Your task to perform on an android device: See recent photos Image 0: 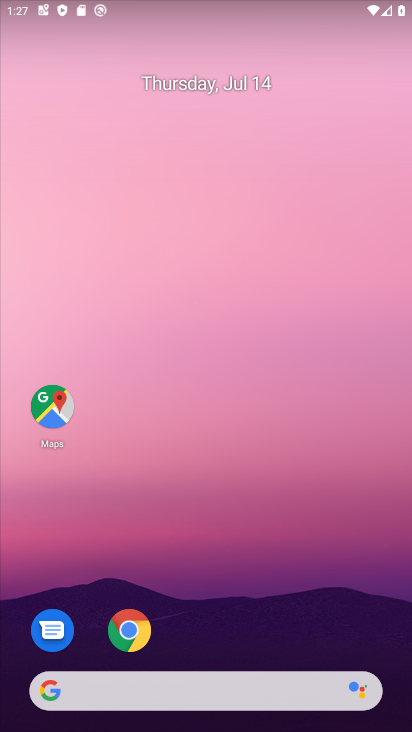
Step 0: drag from (202, 677) to (157, 157)
Your task to perform on an android device: See recent photos Image 1: 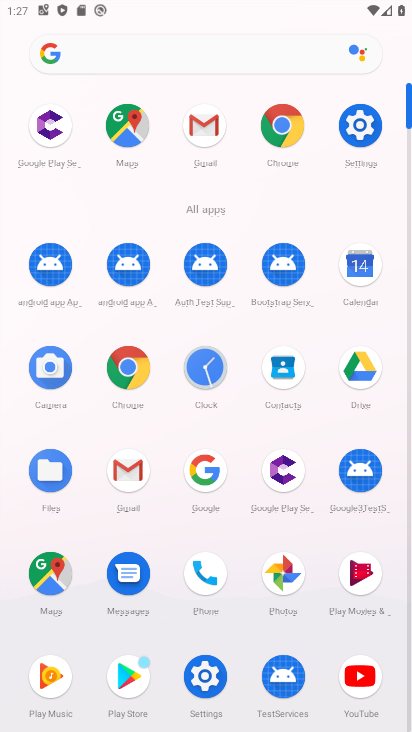
Step 1: click (272, 568)
Your task to perform on an android device: See recent photos Image 2: 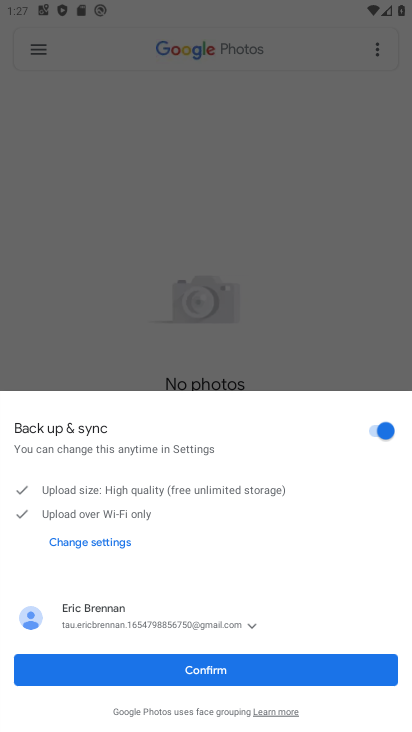
Step 2: click (185, 672)
Your task to perform on an android device: See recent photos Image 3: 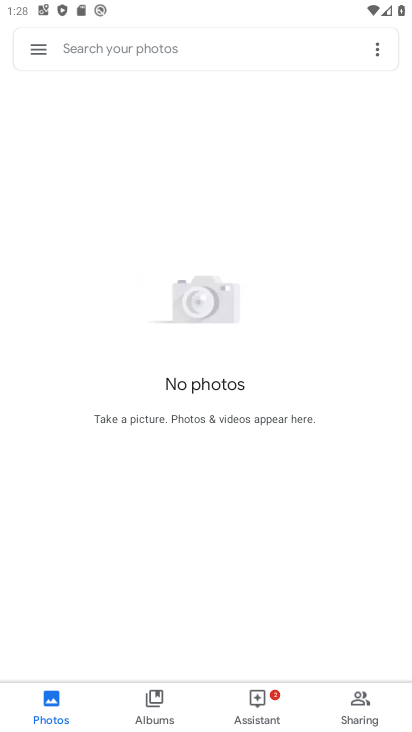
Step 3: click (63, 703)
Your task to perform on an android device: See recent photos Image 4: 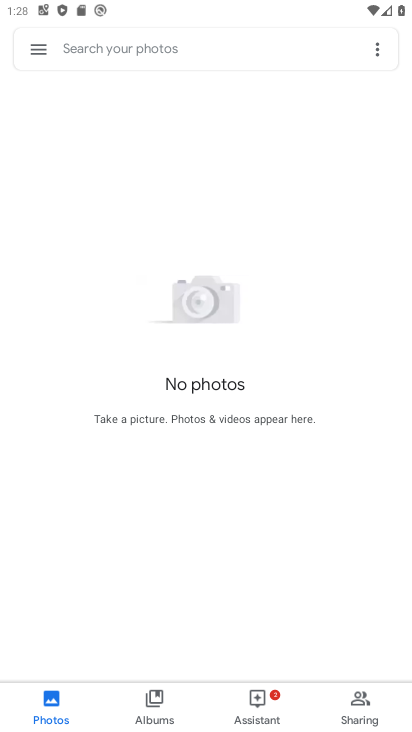
Step 4: task complete